Your task to perform on an android device: Search for vegetarian restaurants on Maps Image 0: 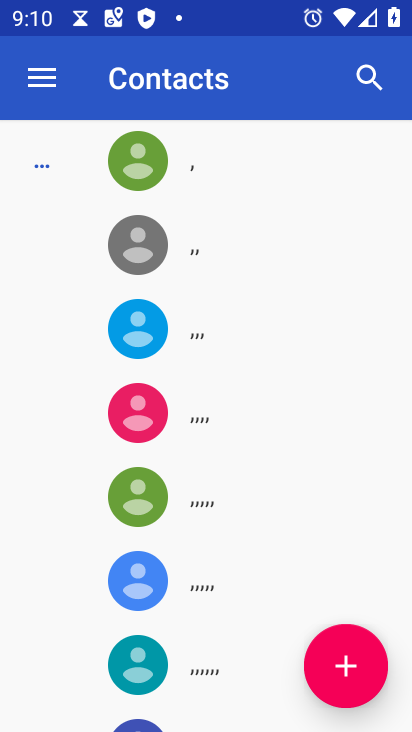
Step 0: press back button
Your task to perform on an android device: Search for vegetarian restaurants on Maps Image 1: 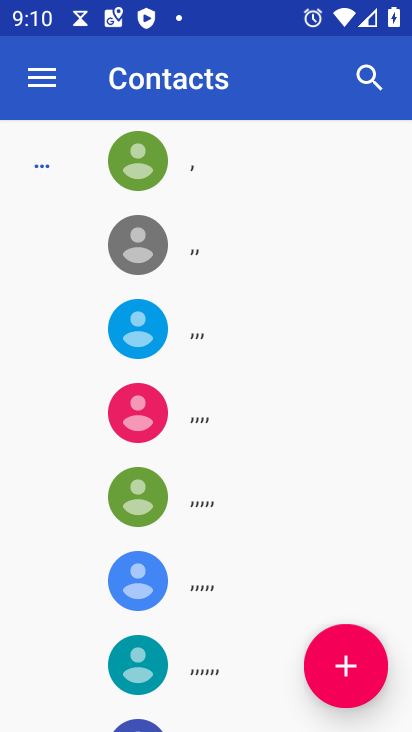
Step 1: press back button
Your task to perform on an android device: Search for vegetarian restaurants on Maps Image 2: 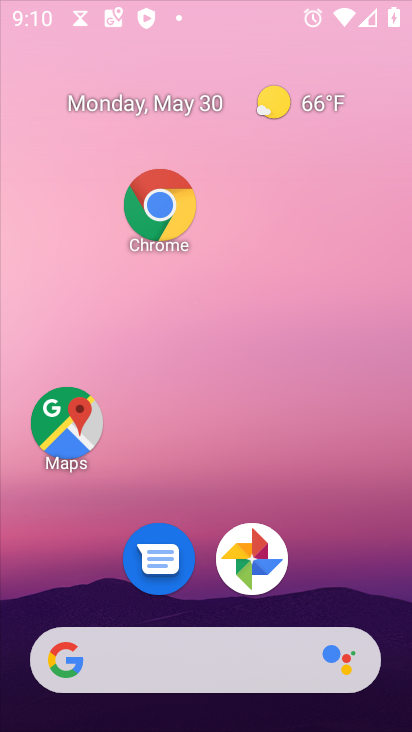
Step 2: press back button
Your task to perform on an android device: Search for vegetarian restaurants on Maps Image 3: 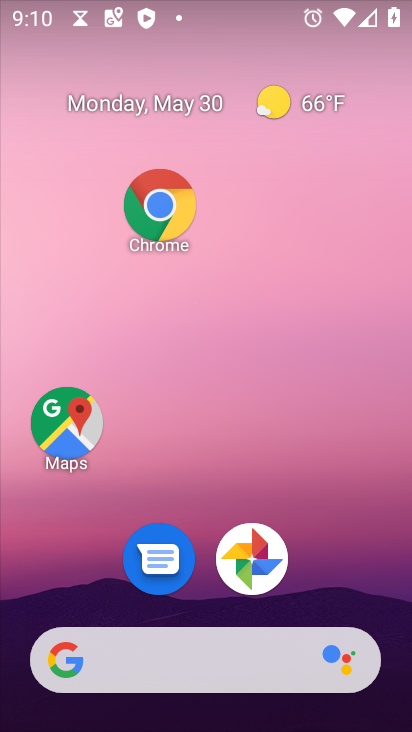
Step 3: drag from (275, 667) to (227, 238)
Your task to perform on an android device: Search for vegetarian restaurants on Maps Image 4: 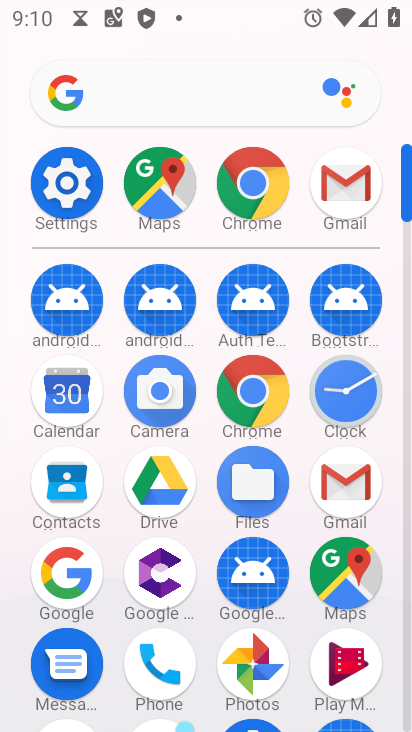
Step 4: click (344, 572)
Your task to perform on an android device: Search for vegetarian restaurants on Maps Image 5: 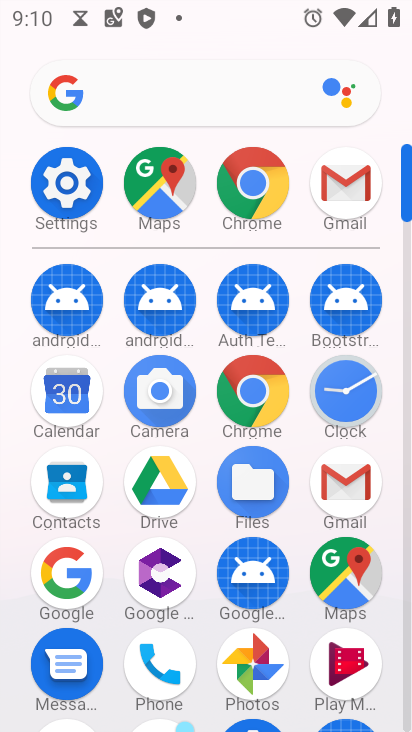
Step 5: click (345, 573)
Your task to perform on an android device: Search for vegetarian restaurants on Maps Image 6: 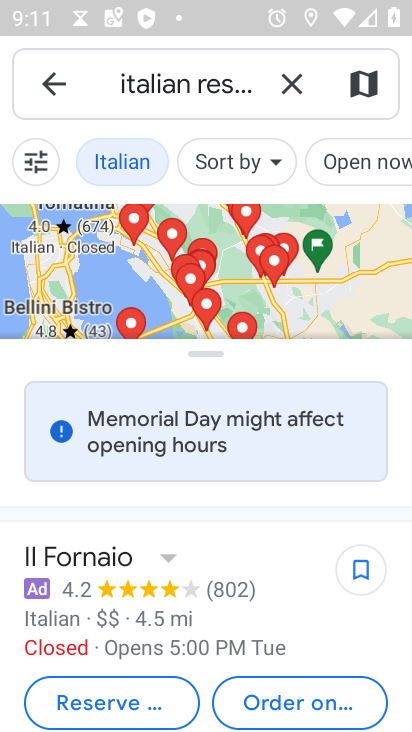
Step 6: click (289, 79)
Your task to perform on an android device: Search for vegetarian restaurants on Maps Image 7: 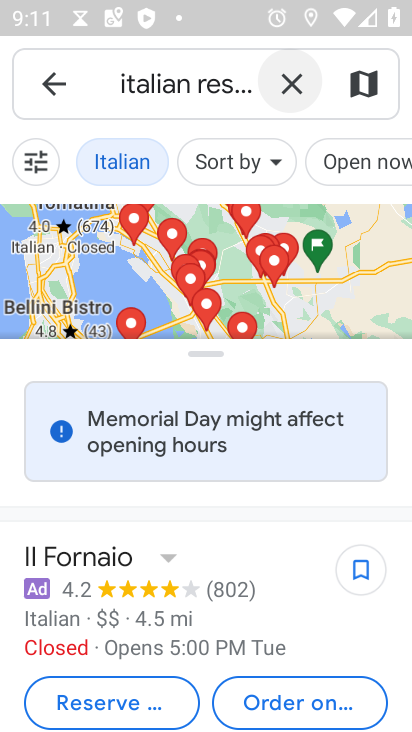
Step 7: click (289, 79)
Your task to perform on an android device: Search for vegetarian restaurants on Maps Image 8: 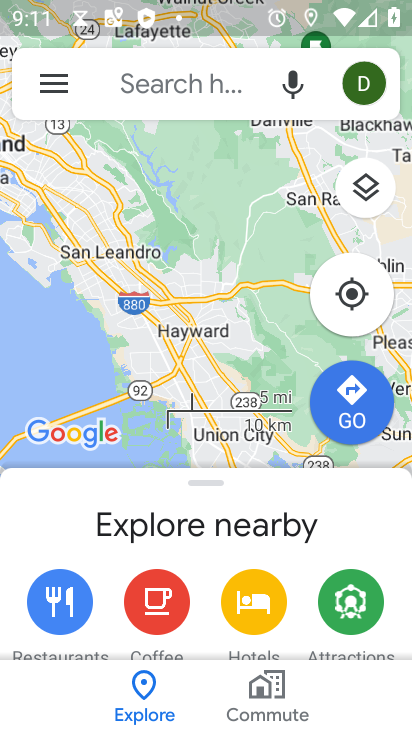
Step 8: click (288, 80)
Your task to perform on an android device: Search for vegetarian restaurants on Maps Image 9: 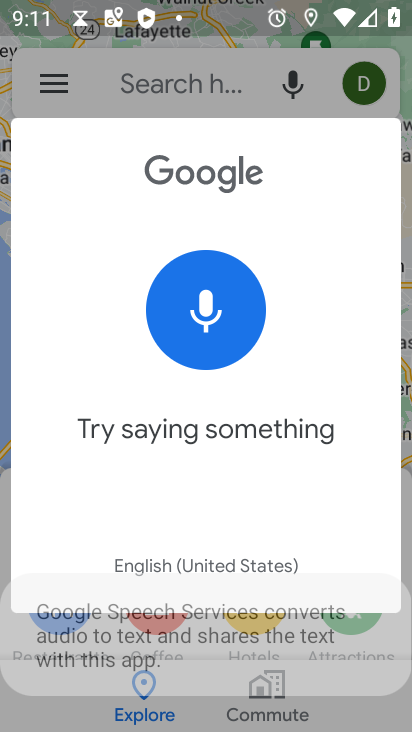
Step 9: click (105, 73)
Your task to perform on an android device: Search for vegetarian restaurants on Maps Image 10: 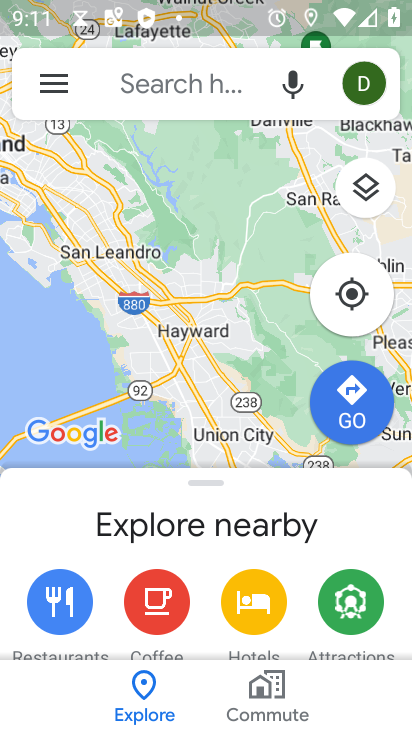
Step 10: click (120, 92)
Your task to perform on an android device: Search for vegetarian restaurants on Maps Image 11: 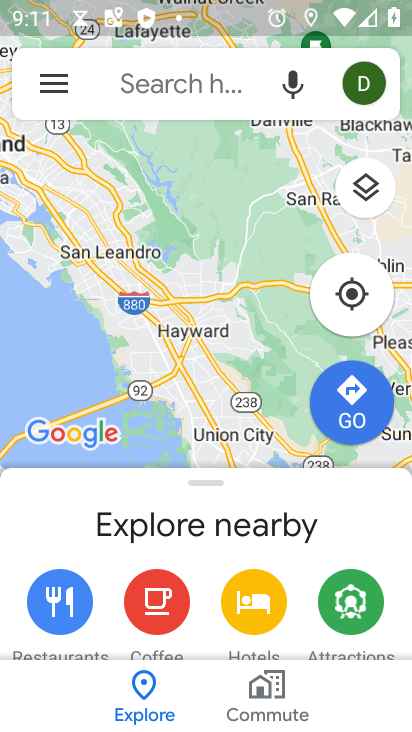
Step 11: click (120, 92)
Your task to perform on an android device: Search for vegetarian restaurants on Maps Image 12: 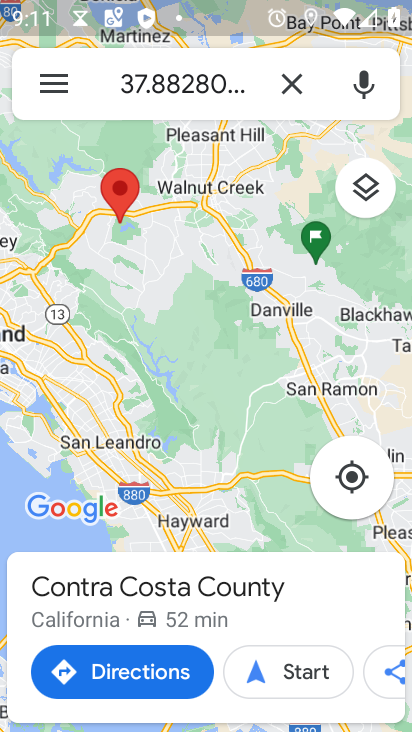
Step 12: click (292, 78)
Your task to perform on an android device: Search for vegetarian restaurants on Maps Image 13: 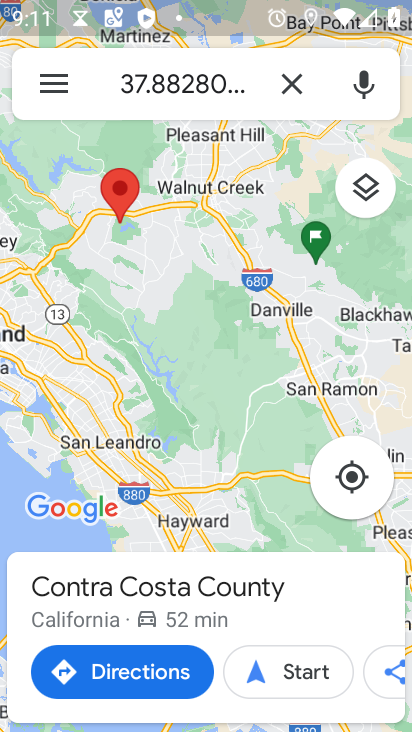
Step 13: click (292, 78)
Your task to perform on an android device: Search for vegetarian restaurants on Maps Image 14: 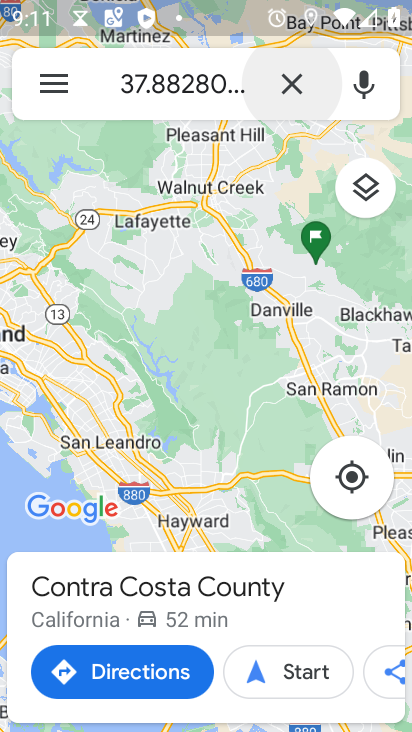
Step 14: click (292, 78)
Your task to perform on an android device: Search for vegetarian restaurants on Maps Image 15: 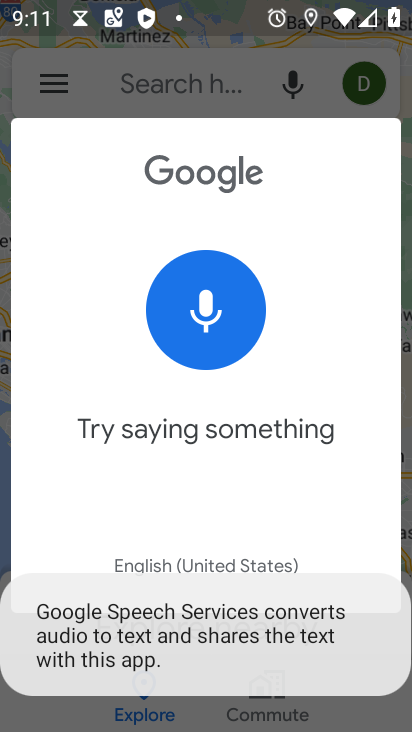
Step 15: click (137, 72)
Your task to perform on an android device: Search for vegetarian restaurants on Maps Image 16: 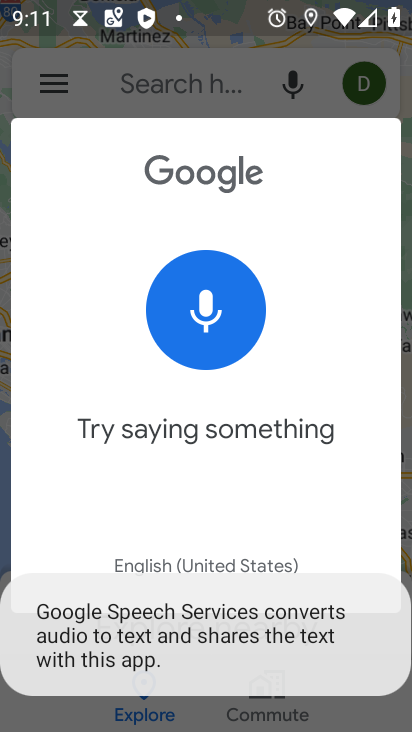
Step 16: click (130, 82)
Your task to perform on an android device: Search for vegetarian restaurants on Maps Image 17: 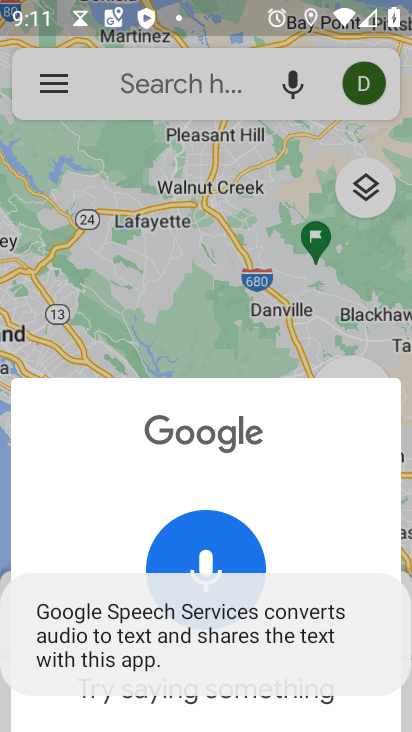
Step 17: click (127, 84)
Your task to perform on an android device: Search for vegetarian restaurants on Maps Image 18: 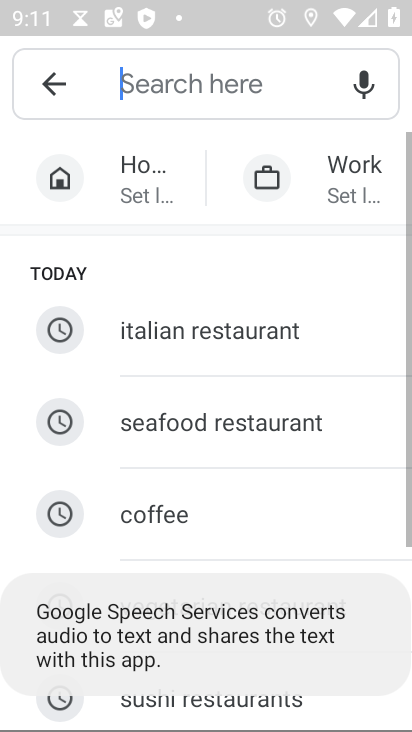
Step 18: click (126, 84)
Your task to perform on an android device: Search for vegetarian restaurants on Maps Image 19: 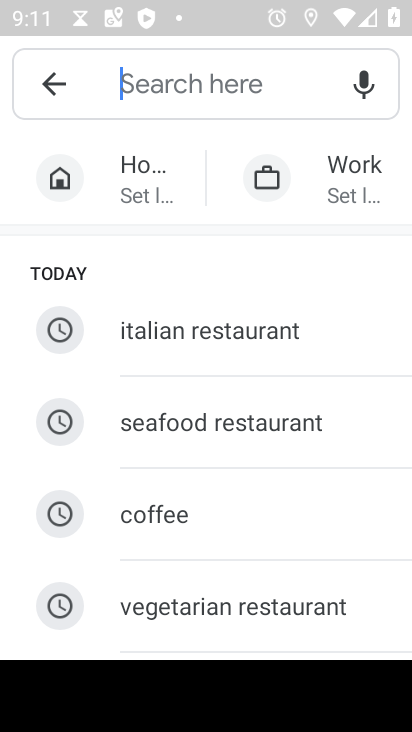
Step 19: type "vegetariab"
Your task to perform on an android device: Search for vegetarian restaurants on Maps Image 20: 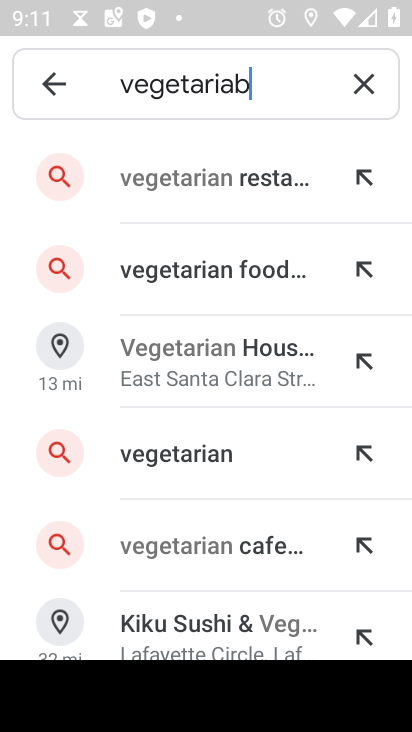
Step 20: click (230, 169)
Your task to perform on an android device: Search for vegetarian restaurants on Maps Image 21: 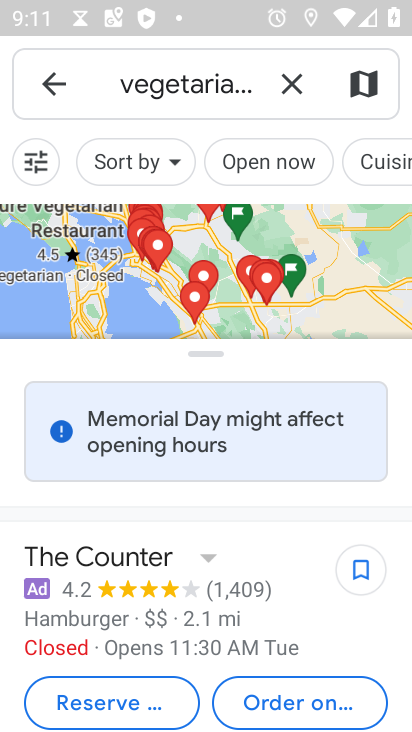
Step 21: task complete